Your task to perform on an android device: Go to accessibility settings Image 0: 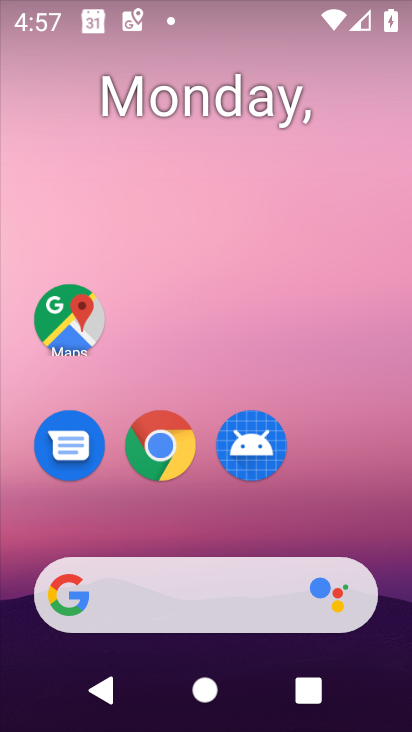
Step 0: drag from (329, 516) to (333, 4)
Your task to perform on an android device: Go to accessibility settings Image 1: 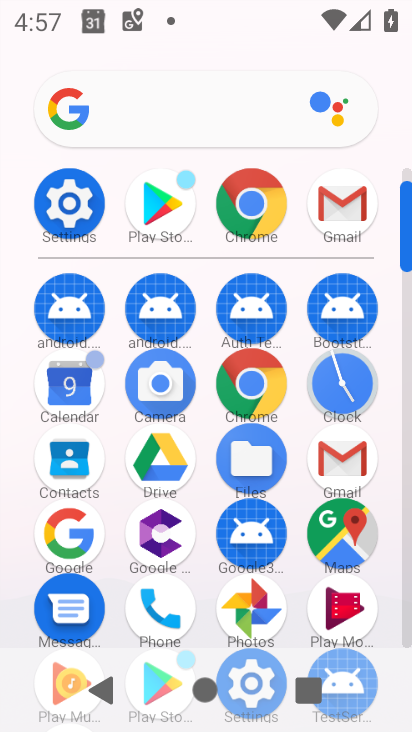
Step 1: click (75, 199)
Your task to perform on an android device: Go to accessibility settings Image 2: 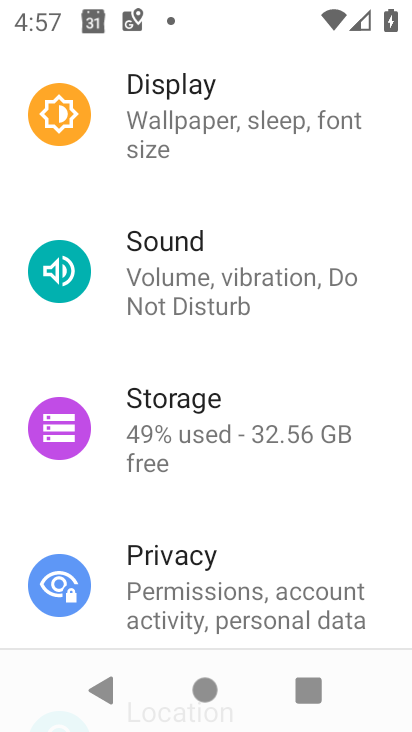
Step 2: drag from (262, 574) to (282, 69)
Your task to perform on an android device: Go to accessibility settings Image 3: 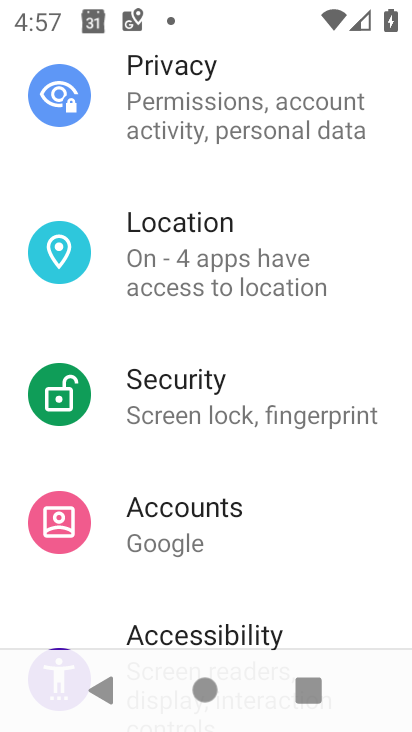
Step 3: drag from (264, 528) to (303, 111)
Your task to perform on an android device: Go to accessibility settings Image 4: 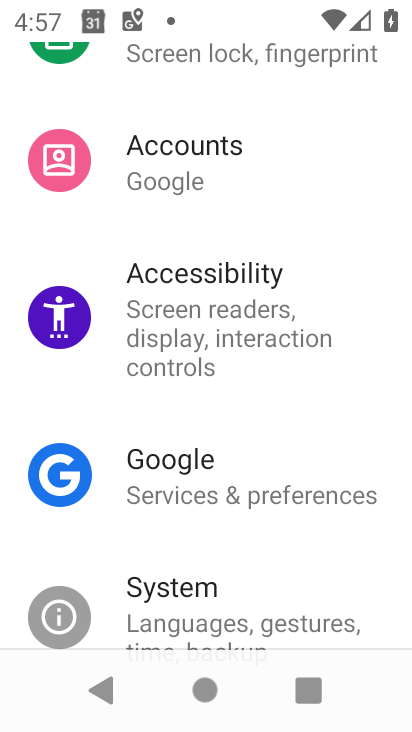
Step 4: click (223, 345)
Your task to perform on an android device: Go to accessibility settings Image 5: 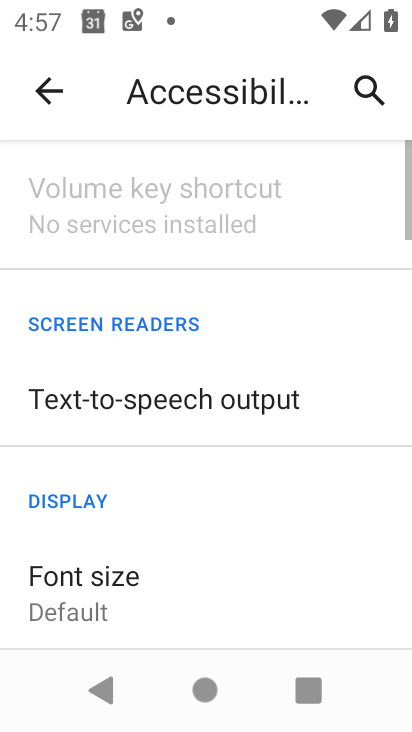
Step 5: task complete